Your task to perform on an android device: Go to internet settings Image 0: 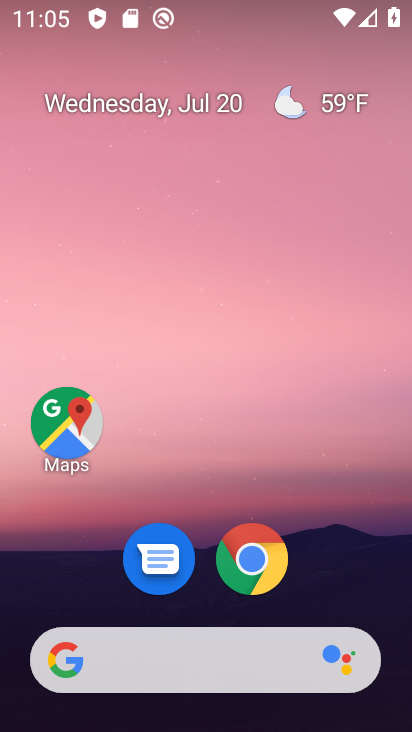
Step 0: drag from (185, 601) to (264, 8)
Your task to perform on an android device: Go to internet settings Image 1: 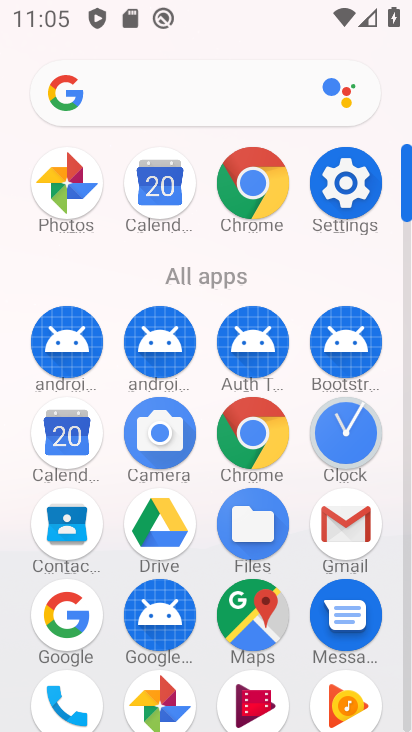
Step 1: click (362, 183)
Your task to perform on an android device: Go to internet settings Image 2: 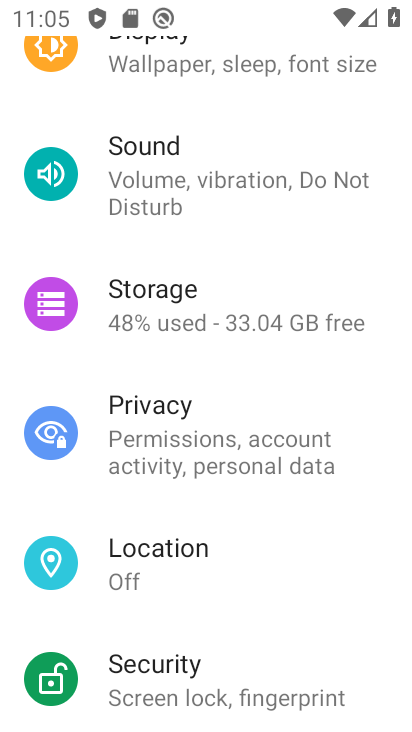
Step 2: drag from (287, 201) to (198, 650)
Your task to perform on an android device: Go to internet settings Image 3: 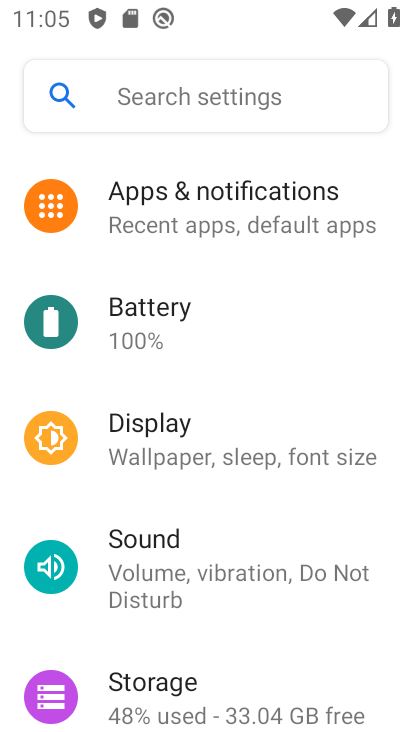
Step 3: drag from (210, 252) to (217, 621)
Your task to perform on an android device: Go to internet settings Image 4: 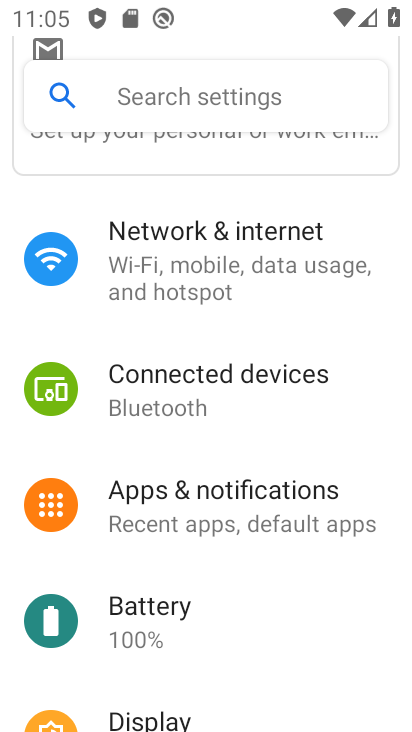
Step 4: click (253, 239)
Your task to perform on an android device: Go to internet settings Image 5: 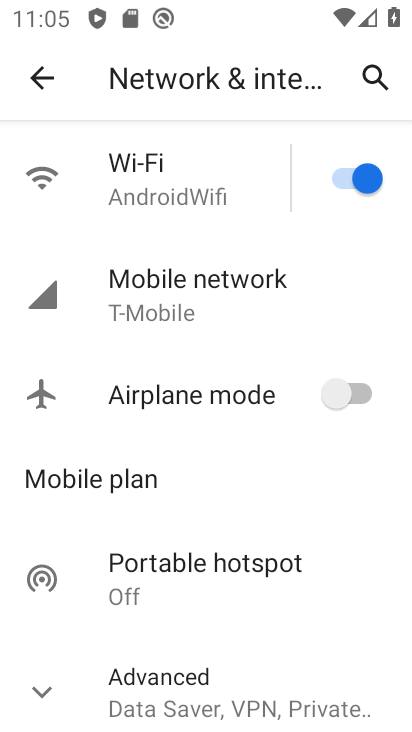
Step 5: task complete